Your task to perform on an android device: turn pop-ups off in chrome Image 0: 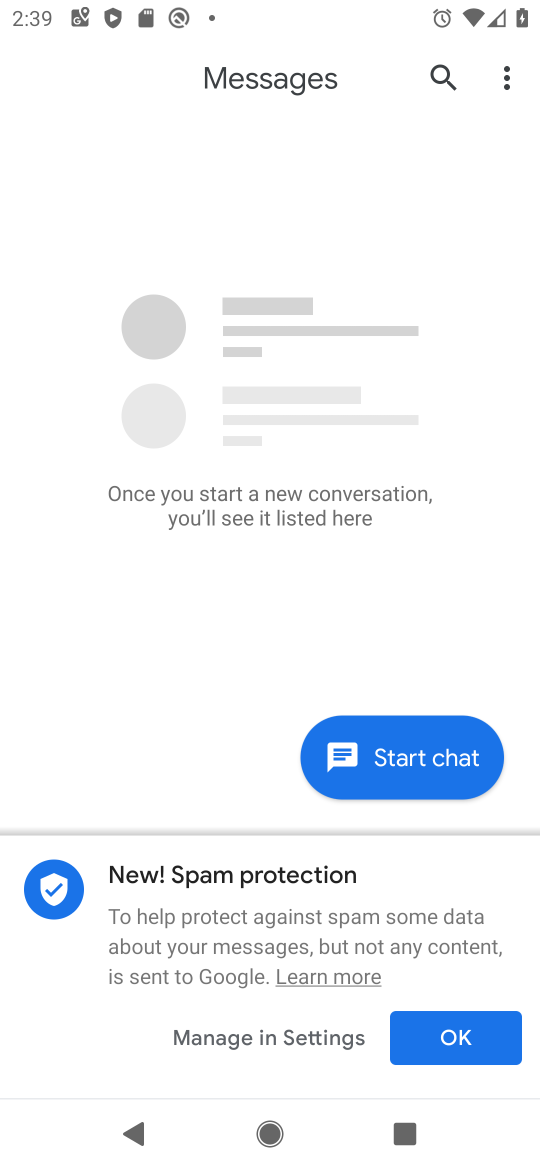
Step 0: press home button
Your task to perform on an android device: turn pop-ups off in chrome Image 1: 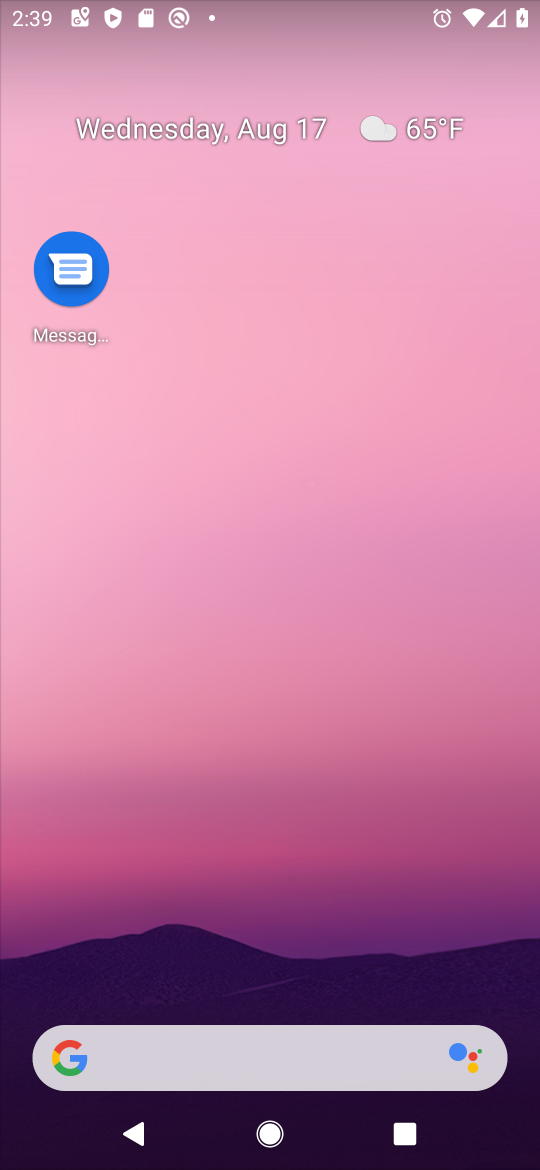
Step 1: drag from (322, 964) to (219, 276)
Your task to perform on an android device: turn pop-ups off in chrome Image 2: 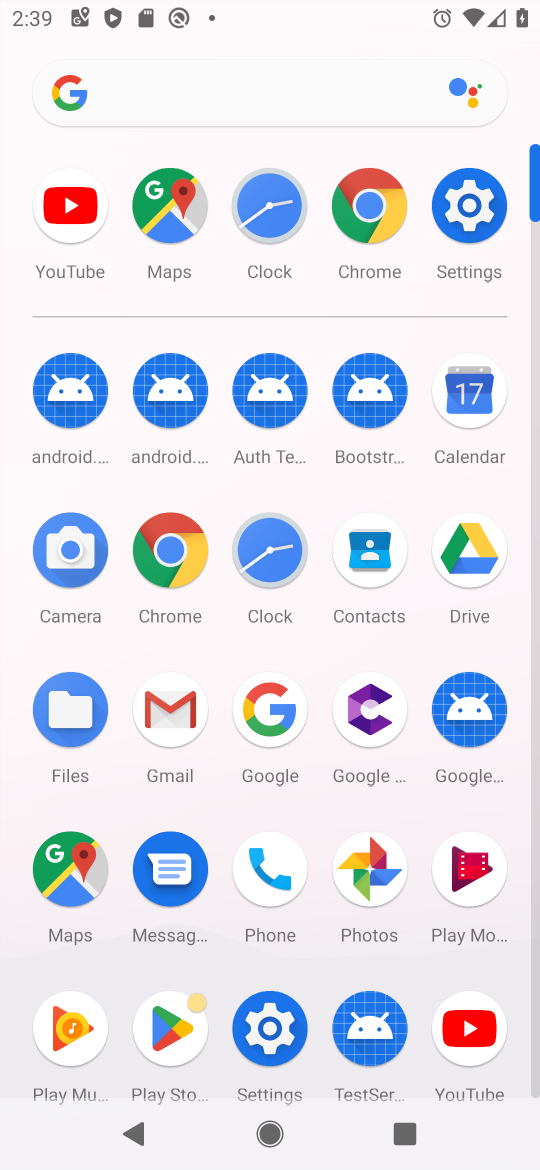
Step 2: click (370, 222)
Your task to perform on an android device: turn pop-ups off in chrome Image 3: 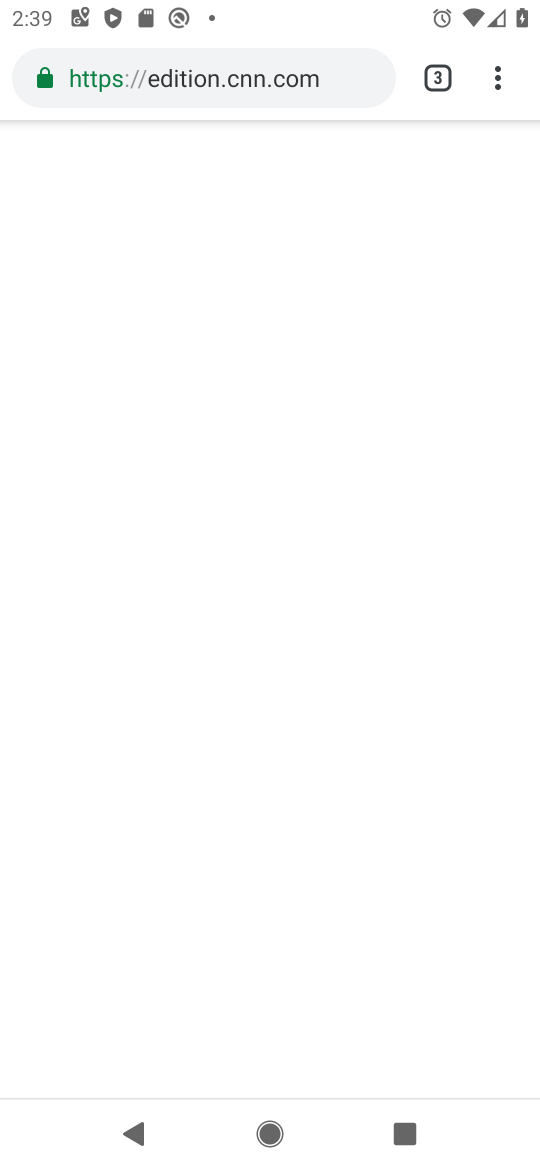
Step 3: click (487, 83)
Your task to perform on an android device: turn pop-ups off in chrome Image 4: 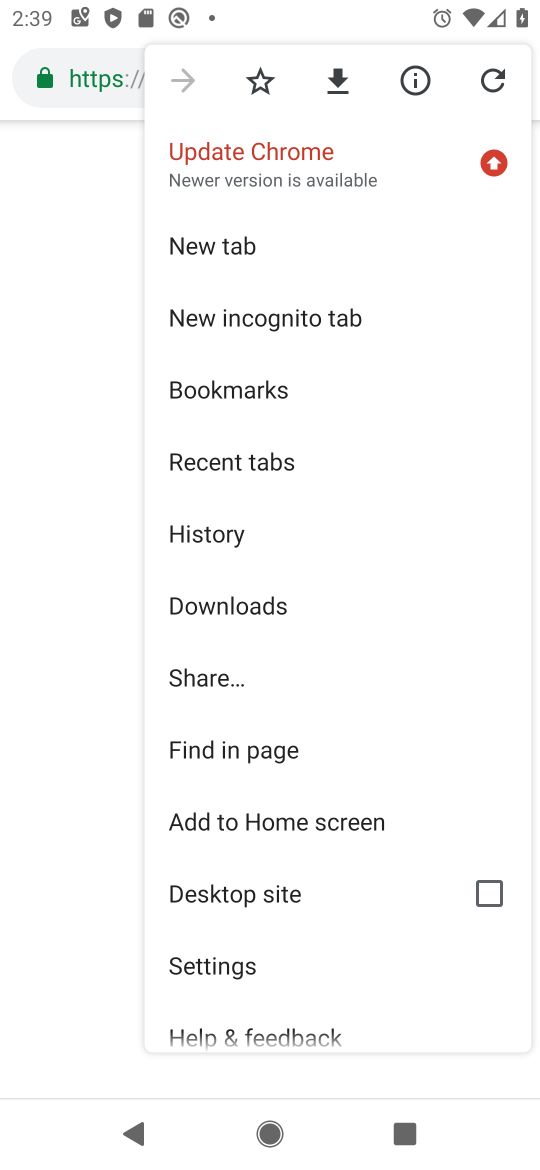
Step 4: click (198, 959)
Your task to perform on an android device: turn pop-ups off in chrome Image 5: 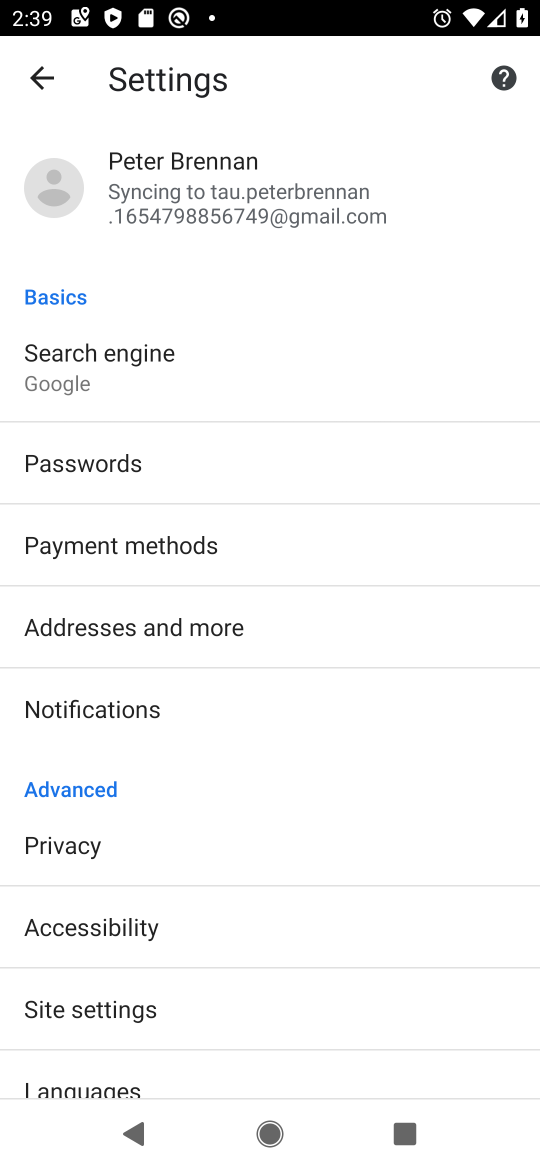
Step 5: click (102, 1007)
Your task to perform on an android device: turn pop-ups off in chrome Image 6: 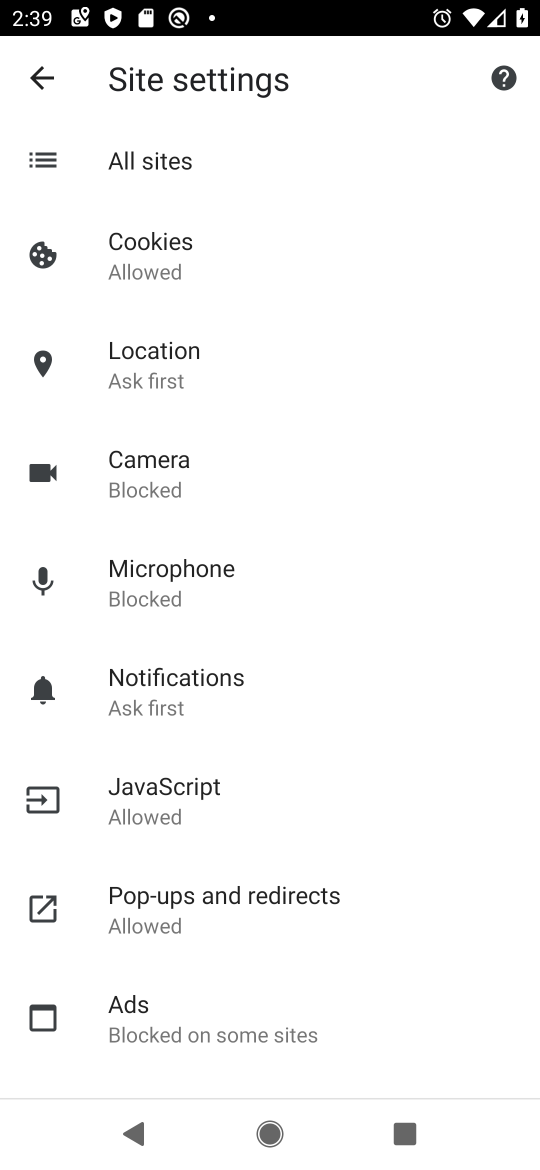
Step 6: click (161, 895)
Your task to perform on an android device: turn pop-ups off in chrome Image 7: 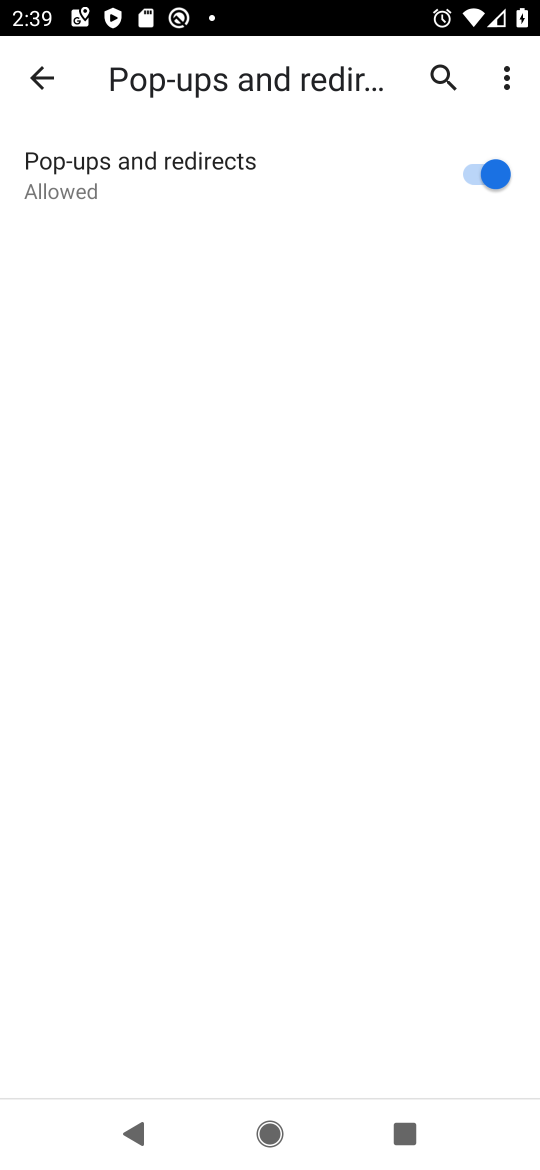
Step 7: click (490, 161)
Your task to perform on an android device: turn pop-ups off in chrome Image 8: 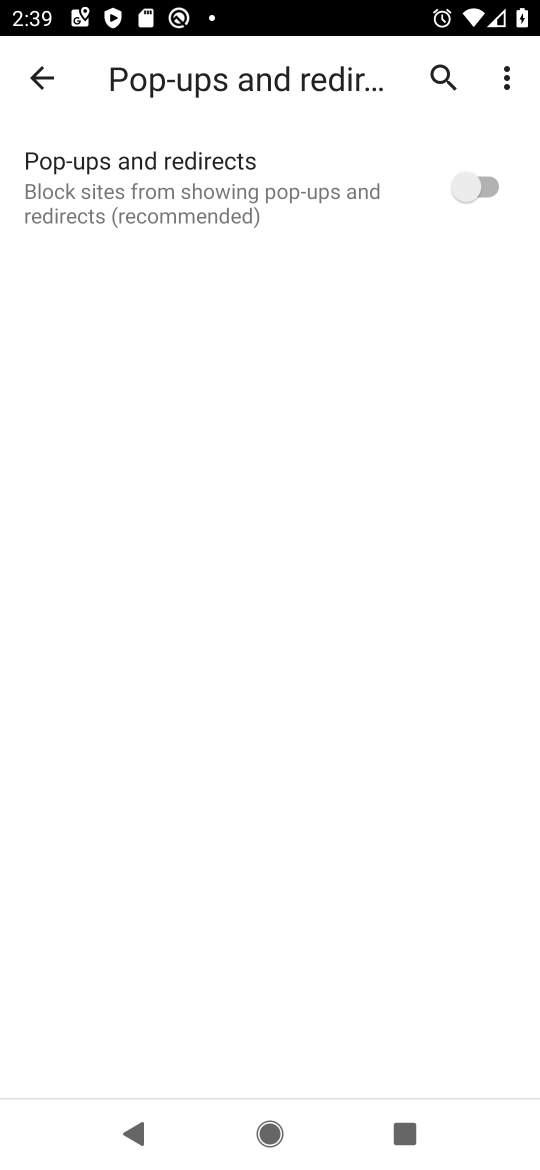
Step 8: task complete